Your task to perform on an android device: turn on sleep mode Image 0: 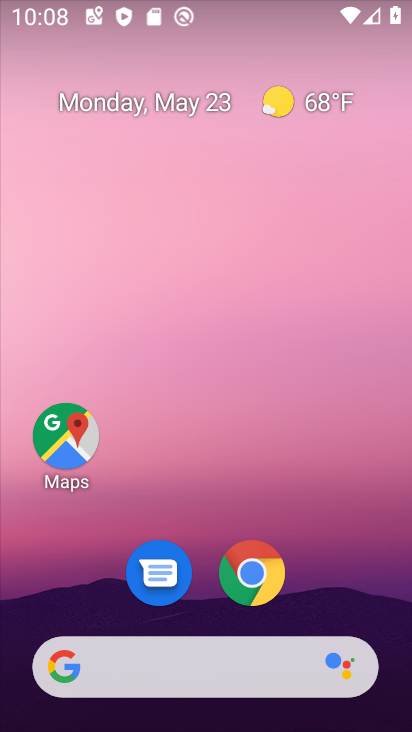
Step 0: drag from (245, 621) to (337, 65)
Your task to perform on an android device: turn on sleep mode Image 1: 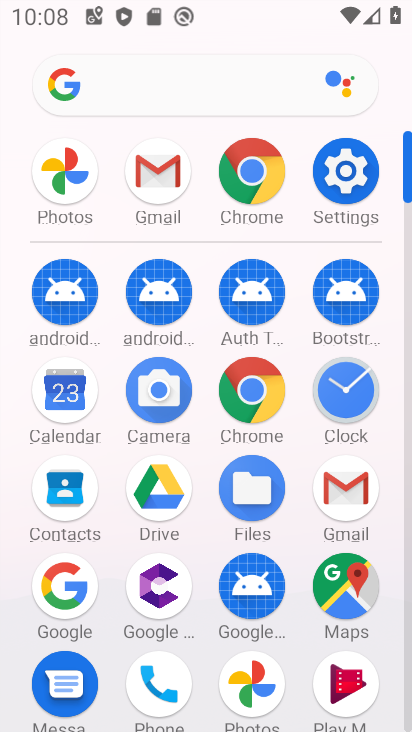
Step 1: click (352, 179)
Your task to perform on an android device: turn on sleep mode Image 2: 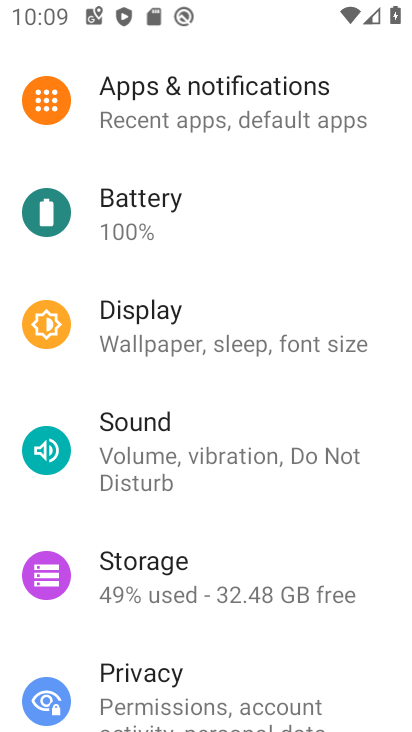
Step 2: click (146, 318)
Your task to perform on an android device: turn on sleep mode Image 3: 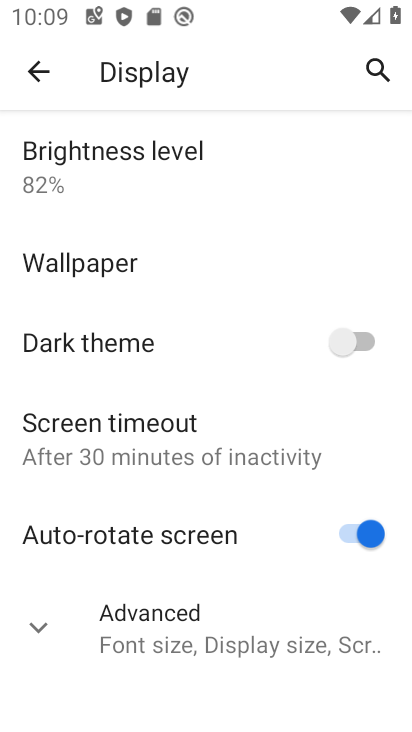
Step 3: click (215, 632)
Your task to perform on an android device: turn on sleep mode Image 4: 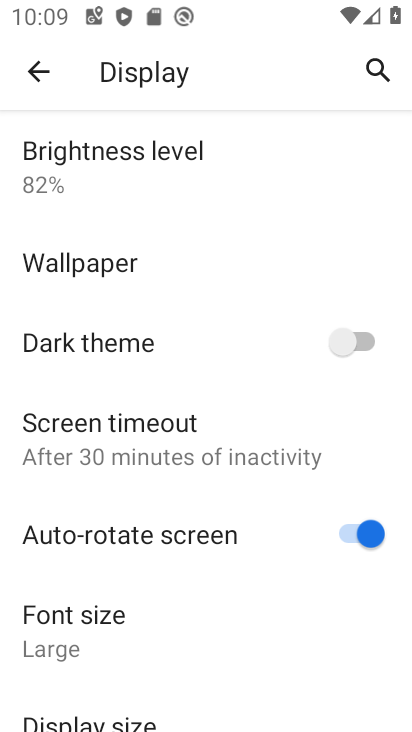
Step 4: task complete